Your task to perform on an android device: change keyboard looks Image 0: 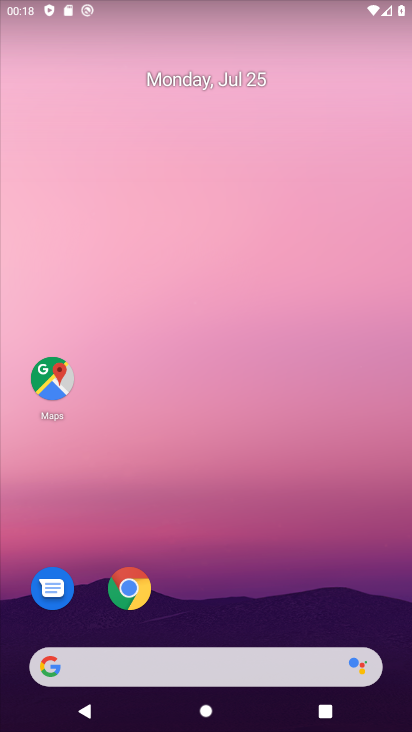
Step 0: drag from (217, 585) to (237, 21)
Your task to perform on an android device: change keyboard looks Image 1: 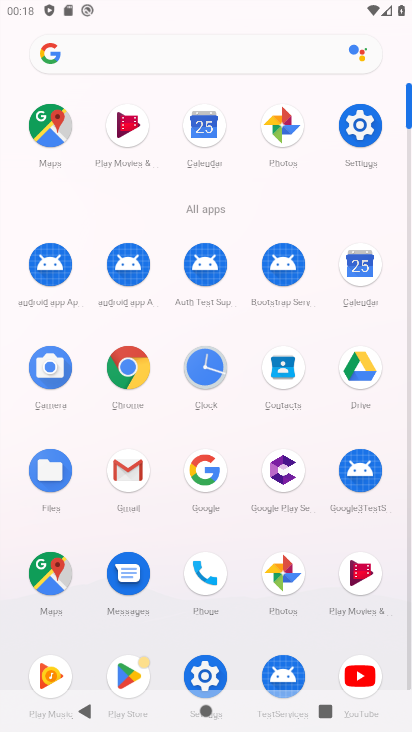
Step 1: click (215, 664)
Your task to perform on an android device: change keyboard looks Image 2: 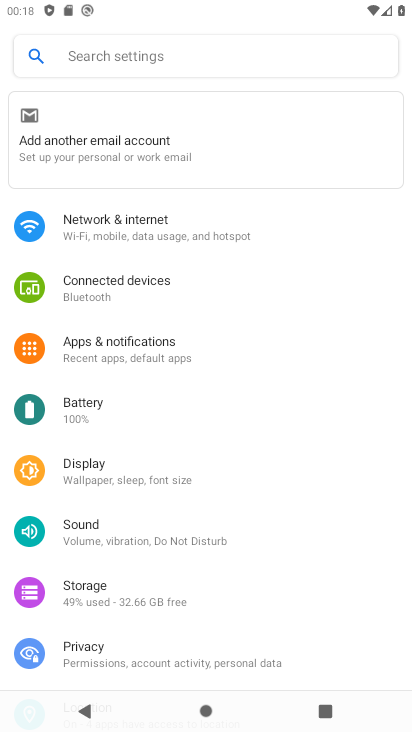
Step 2: drag from (104, 609) to (166, 199)
Your task to perform on an android device: change keyboard looks Image 3: 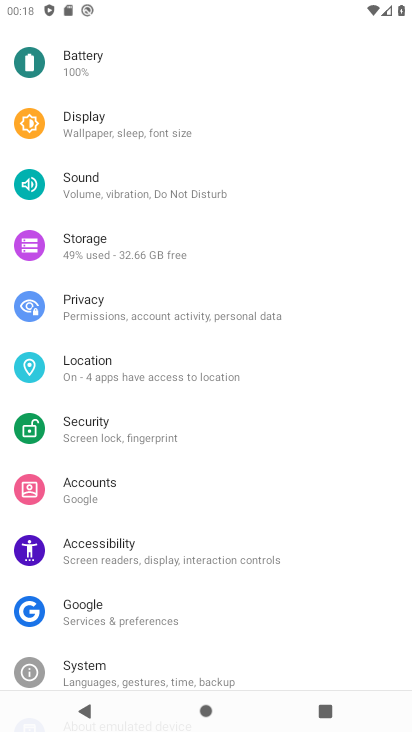
Step 3: drag from (112, 619) to (140, 357)
Your task to perform on an android device: change keyboard looks Image 4: 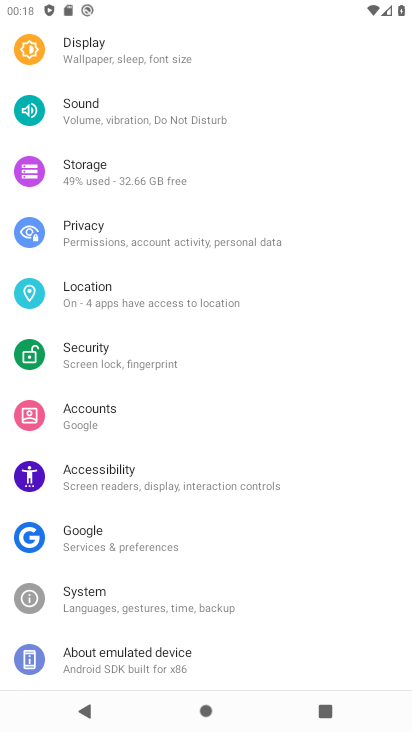
Step 4: click (100, 589)
Your task to perform on an android device: change keyboard looks Image 5: 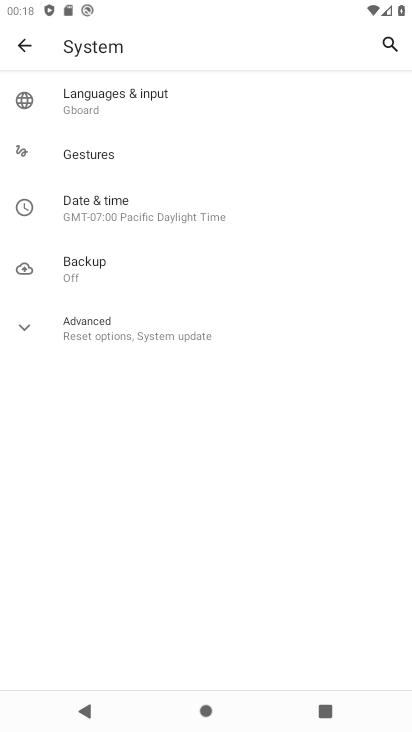
Step 5: click (118, 106)
Your task to perform on an android device: change keyboard looks Image 6: 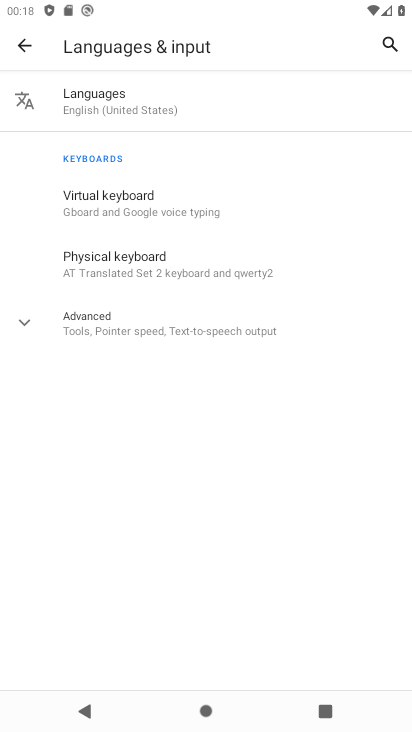
Step 6: click (107, 200)
Your task to perform on an android device: change keyboard looks Image 7: 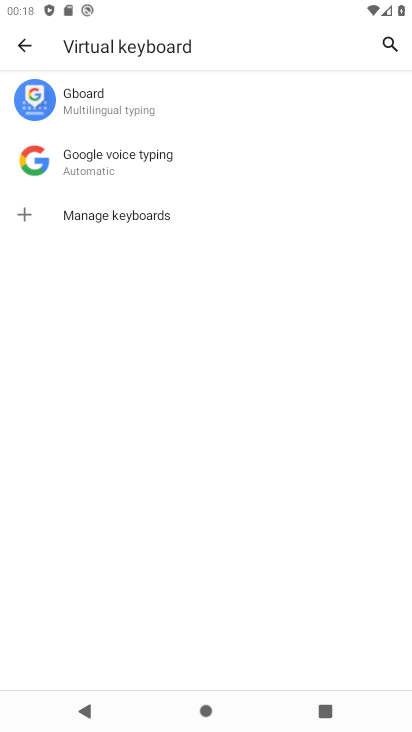
Step 7: click (88, 107)
Your task to perform on an android device: change keyboard looks Image 8: 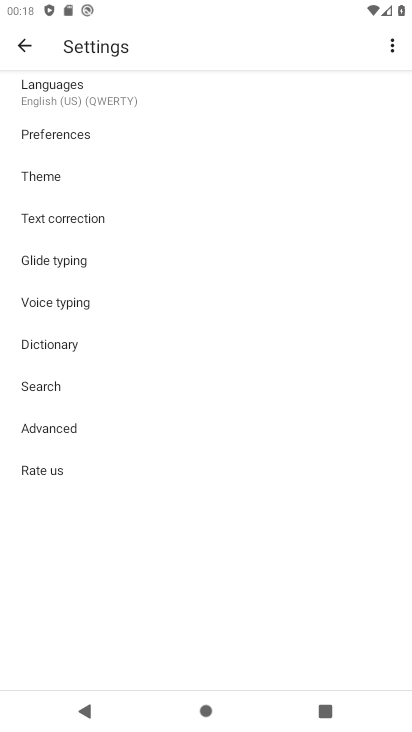
Step 8: click (54, 178)
Your task to perform on an android device: change keyboard looks Image 9: 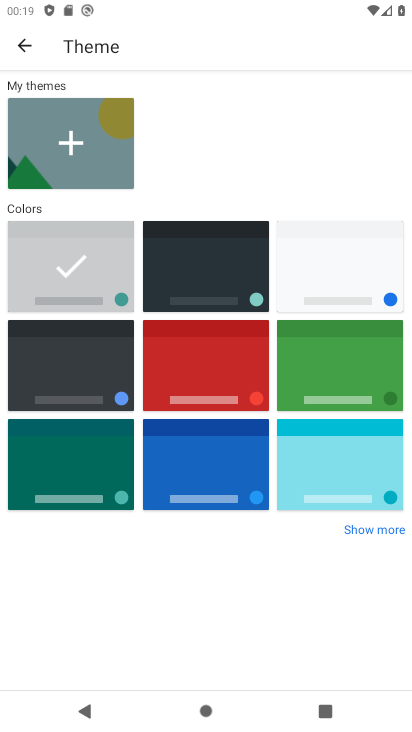
Step 9: click (212, 278)
Your task to perform on an android device: change keyboard looks Image 10: 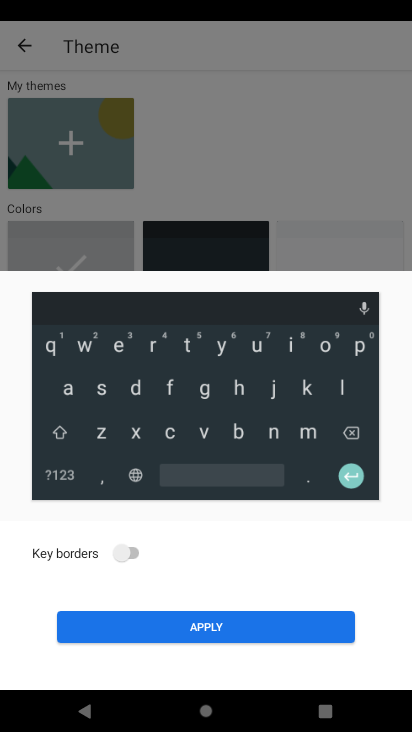
Step 10: click (240, 629)
Your task to perform on an android device: change keyboard looks Image 11: 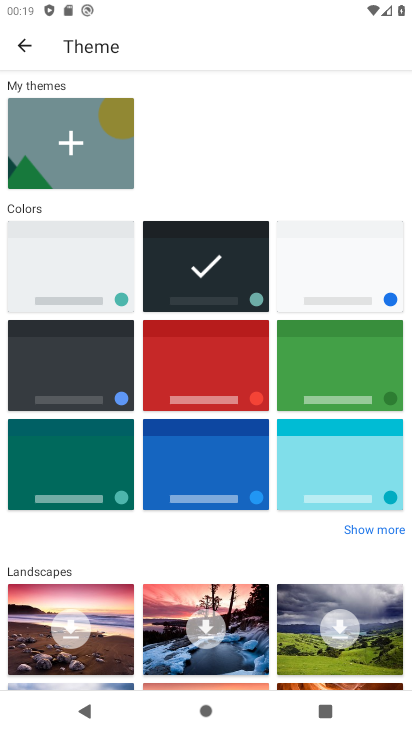
Step 11: task complete